Your task to perform on an android device: set an alarm Image 0: 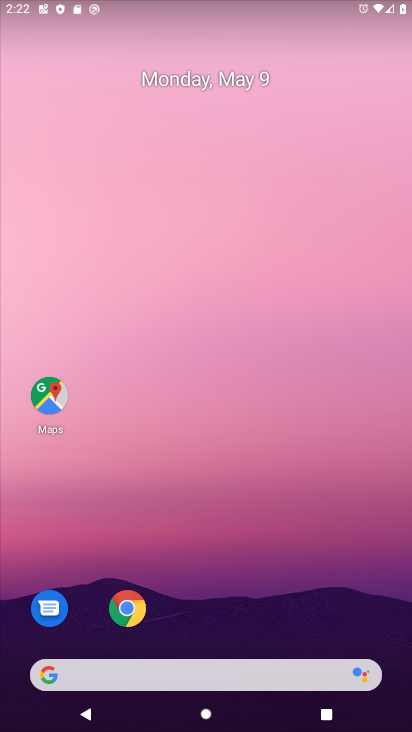
Step 0: drag from (196, 624) to (197, 178)
Your task to perform on an android device: set an alarm Image 1: 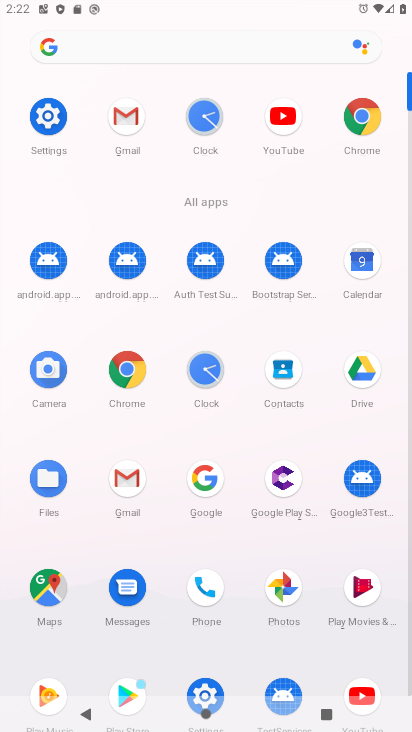
Step 1: click (205, 115)
Your task to perform on an android device: set an alarm Image 2: 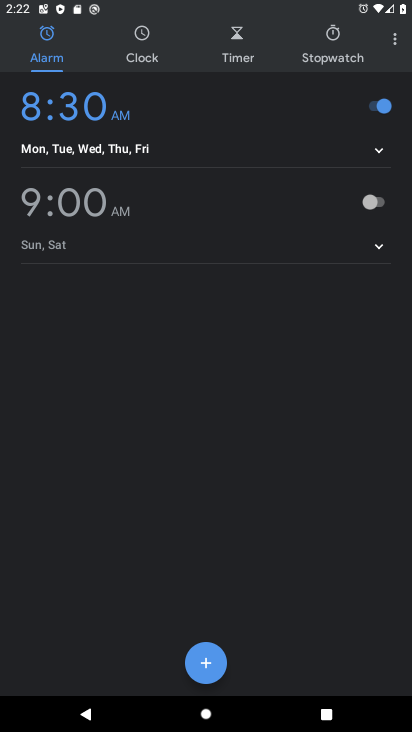
Step 2: click (385, 209)
Your task to perform on an android device: set an alarm Image 3: 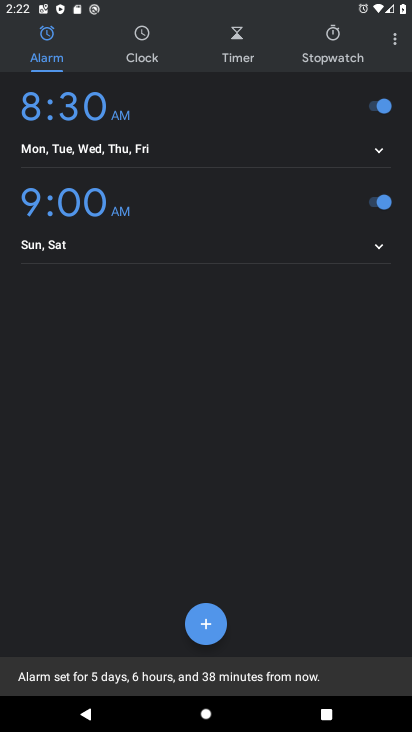
Step 3: task complete